Your task to perform on an android device: toggle airplane mode Image 0: 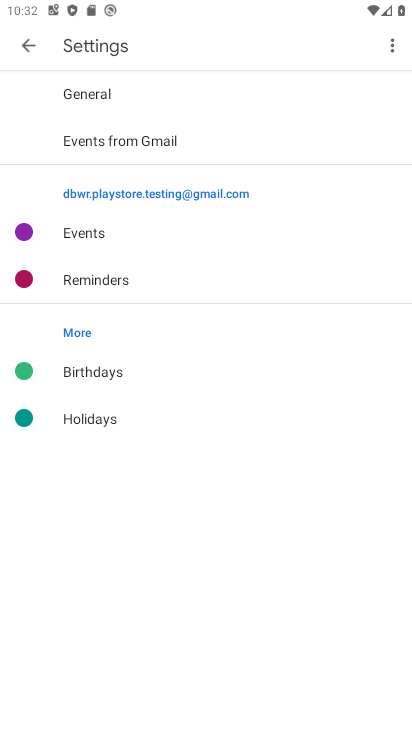
Step 0: press home button
Your task to perform on an android device: toggle airplane mode Image 1: 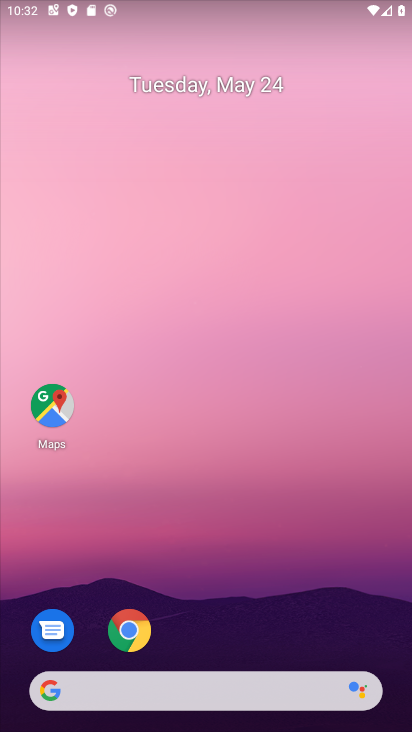
Step 1: drag from (257, 5) to (269, 598)
Your task to perform on an android device: toggle airplane mode Image 2: 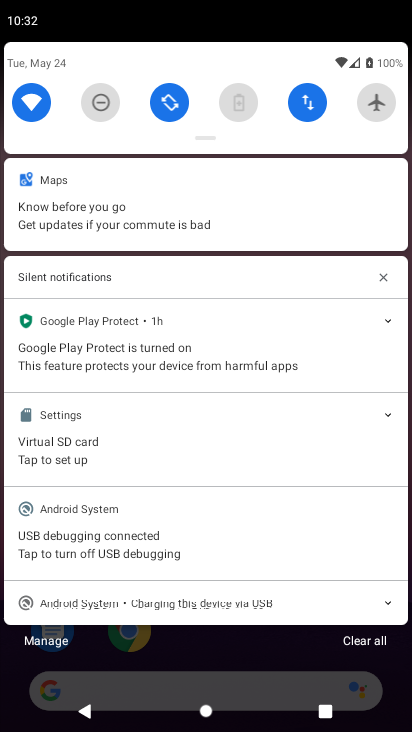
Step 2: click (380, 98)
Your task to perform on an android device: toggle airplane mode Image 3: 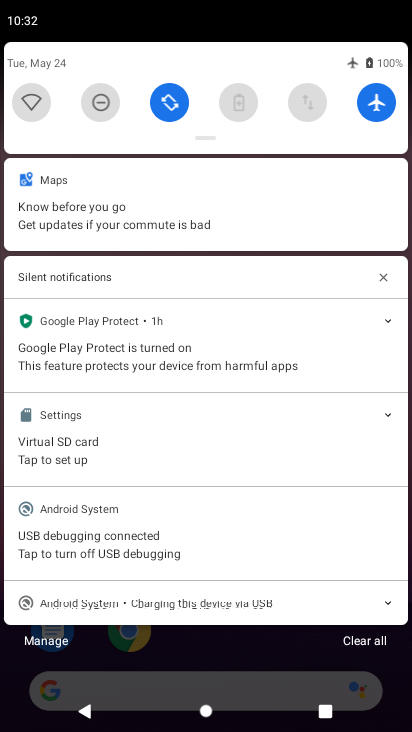
Step 3: task complete